Your task to perform on an android device: Go to internet settings Image 0: 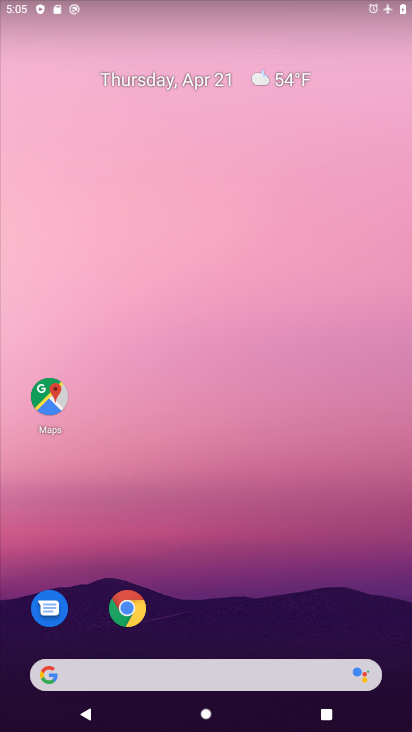
Step 0: drag from (224, 584) to (179, 11)
Your task to perform on an android device: Go to internet settings Image 1: 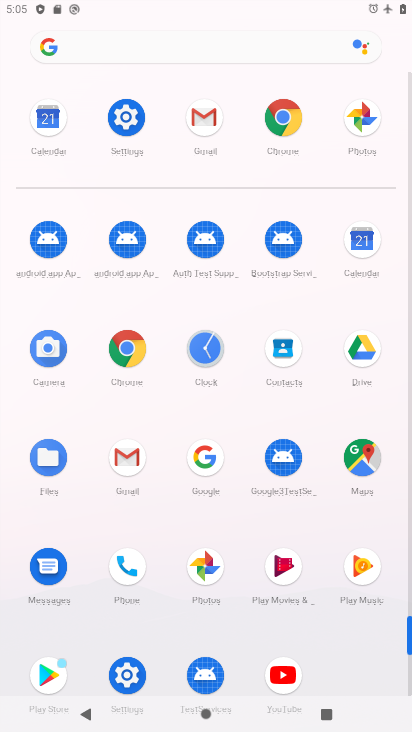
Step 1: click (119, 119)
Your task to perform on an android device: Go to internet settings Image 2: 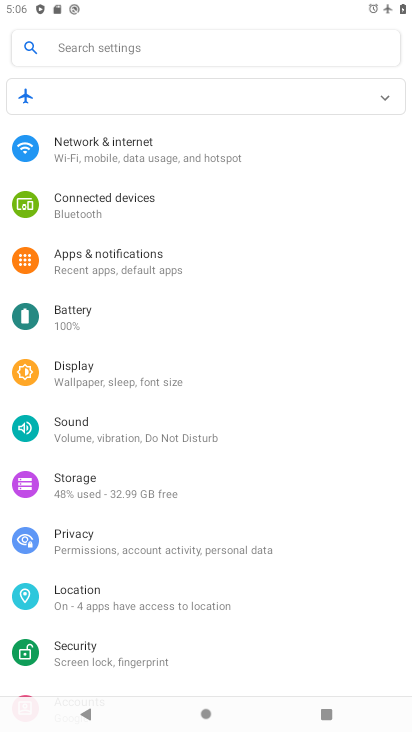
Step 2: click (139, 151)
Your task to perform on an android device: Go to internet settings Image 3: 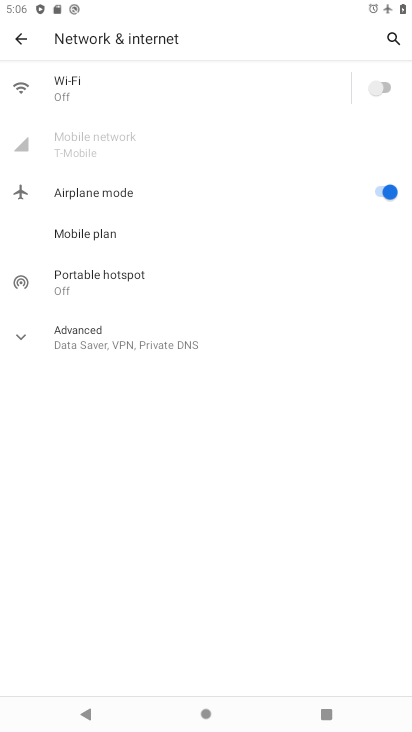
Step 3: task complete